Your task to perform on an android device: Open battery settings Image 0: 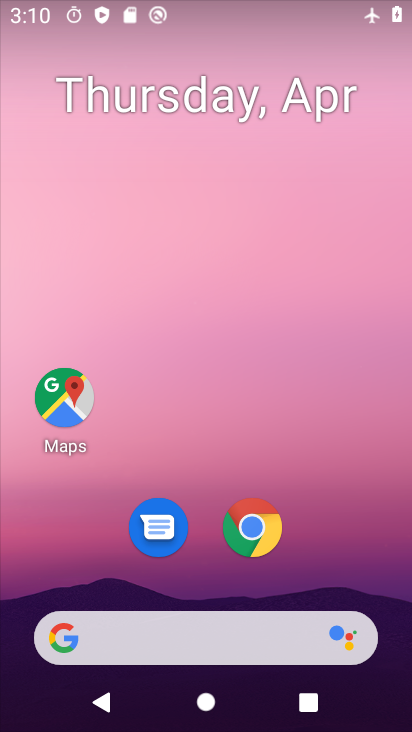
Step 0: drag from (326, 540) to (324, 89)
Your task to perform on an android device: Open battery settings Image 1: 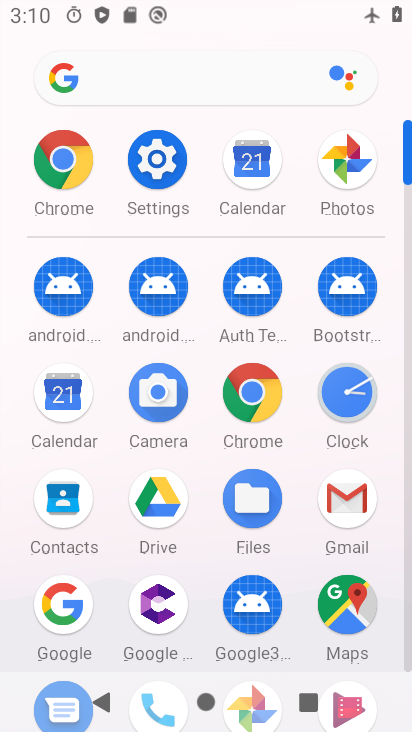
Step 1: click (139, 160)
Your task to perform on an android device: Open battery settings Image 2: 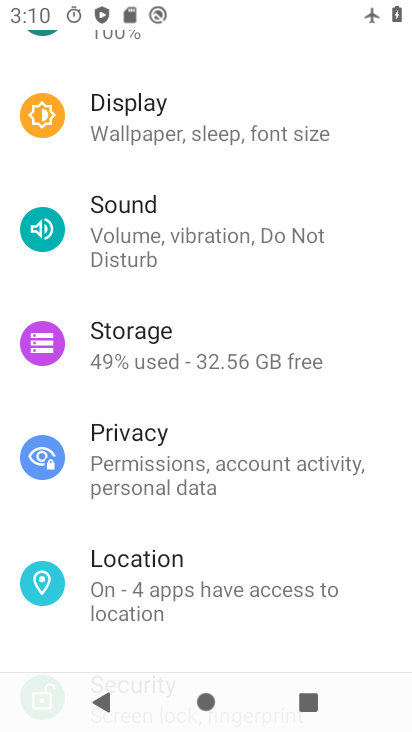
Step 2: drag from (248, 476) to (311, 98)
Your task to perform on an android device: Open battery settings Image 3: 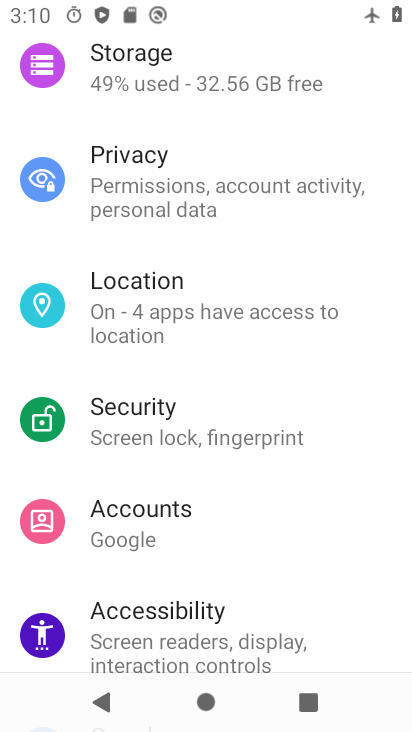
Step 3: drag from (288, 214) to (253, 582)
Your task to perform on an android device: Open battery settings Image 4: 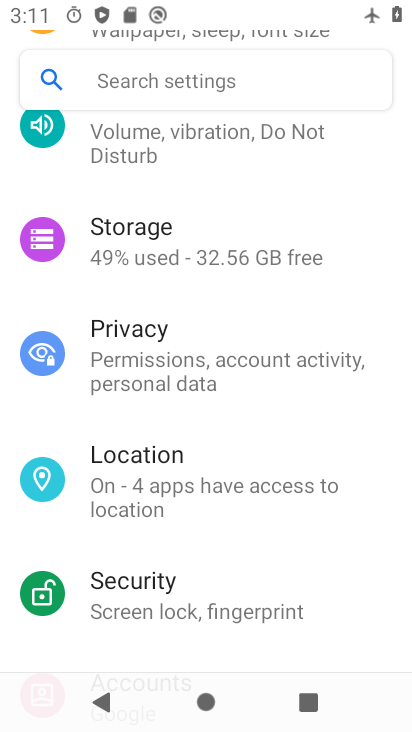
Step 4: drag from (224, 235) to (221, 586)
Your task to perform on an android device: Open battery settings Image 5: 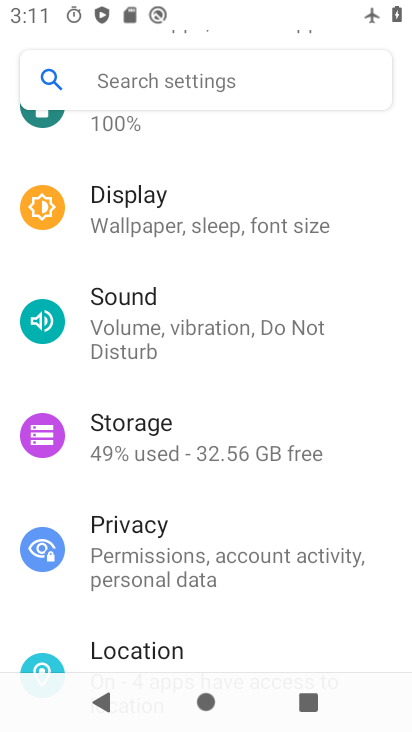
Step 5: drag from (171, 349) to (182, 561)
Your task to perform on an android device: Open battery settings Image 6: 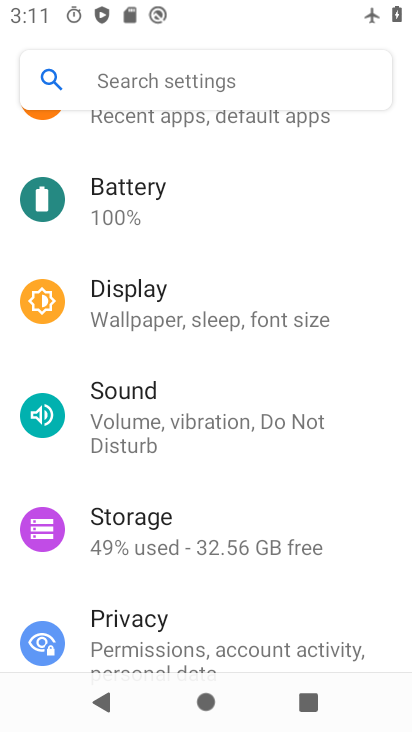
Step 6: click (150, 228)
Your task to perform on an android device: Open battery settings Image 7: 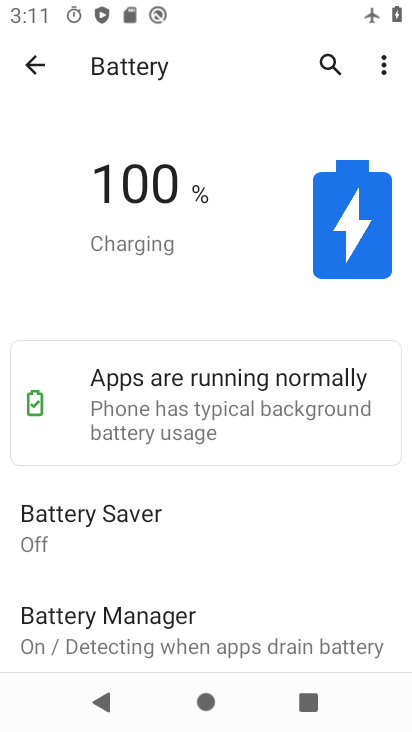
Step 7: task complete